Your task to perform on an android device: turn on improve location accuracy Image 0: 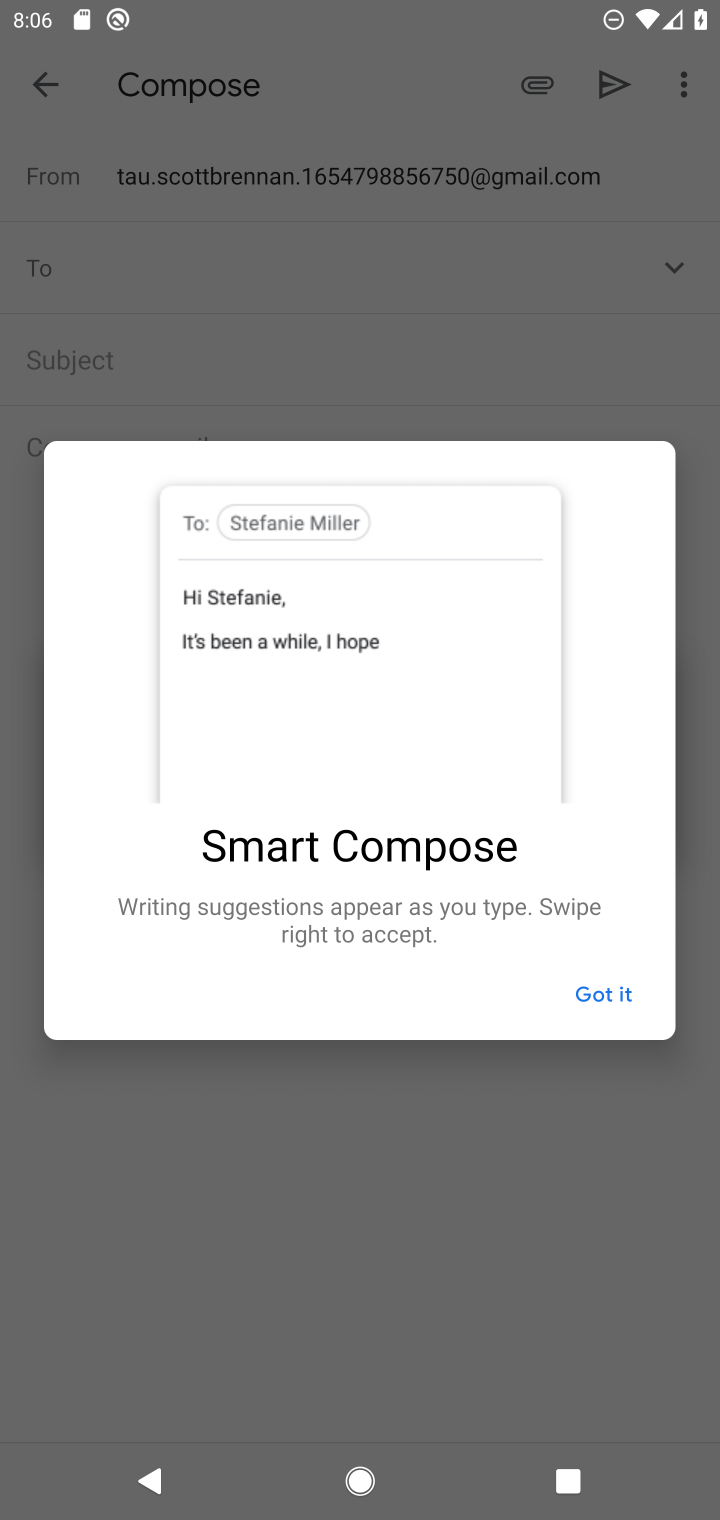
Step 0: press home button
Your task to perform on an android device: turn on improve location accuracy Image 1: 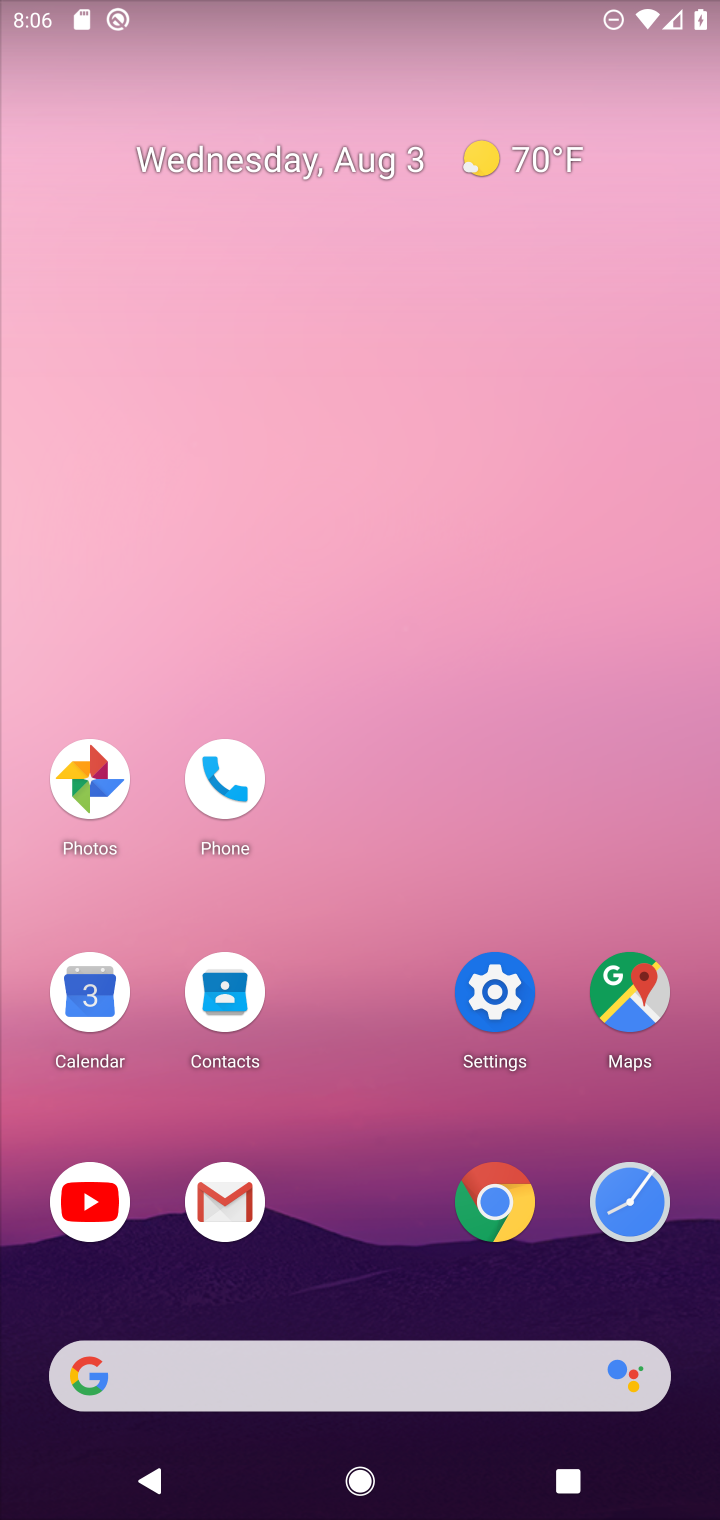
Step 1: click (490, 991)
Your task to perform on an android device: turn on improve location accuracy Image 2: 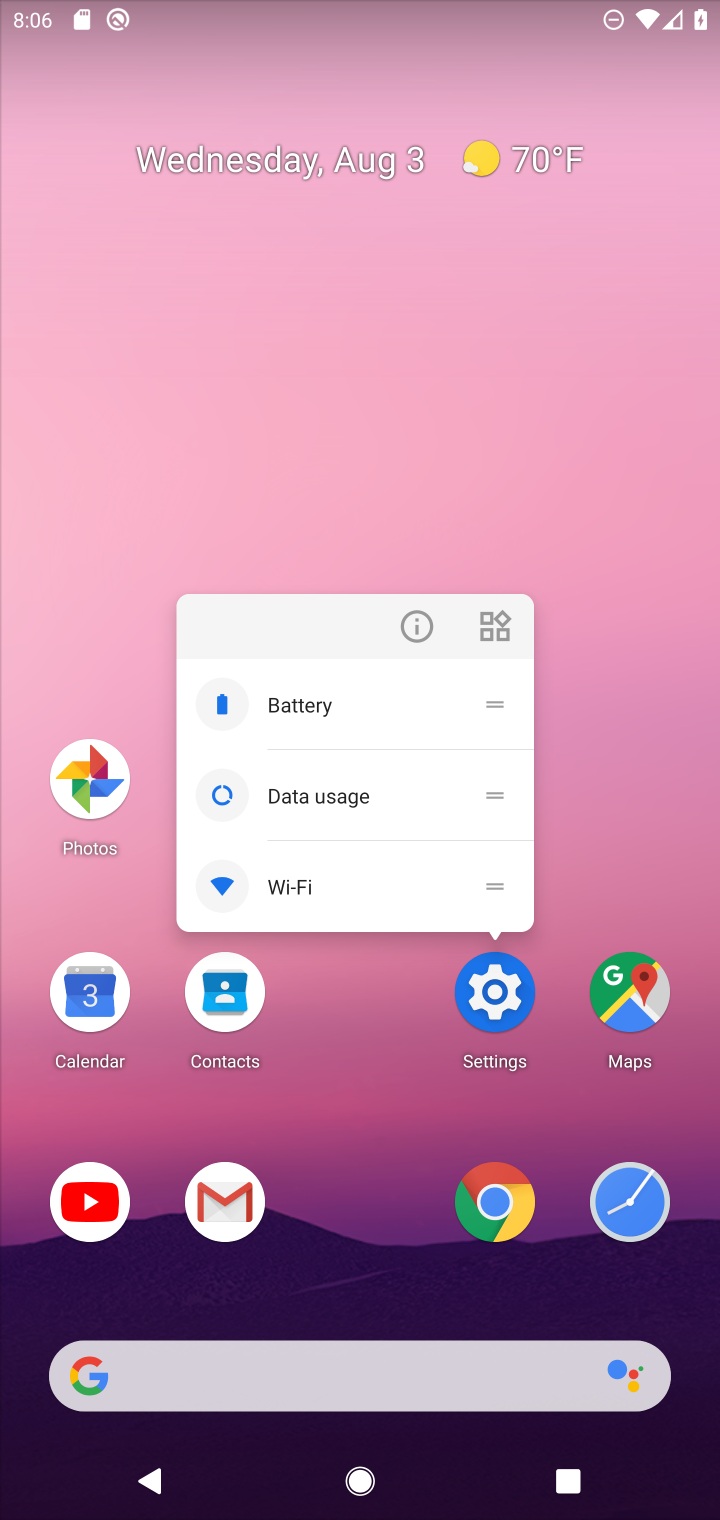
Step 2: click (490, 991)
Your task to perform on an android device: turn on improve location accuracy Image 3: 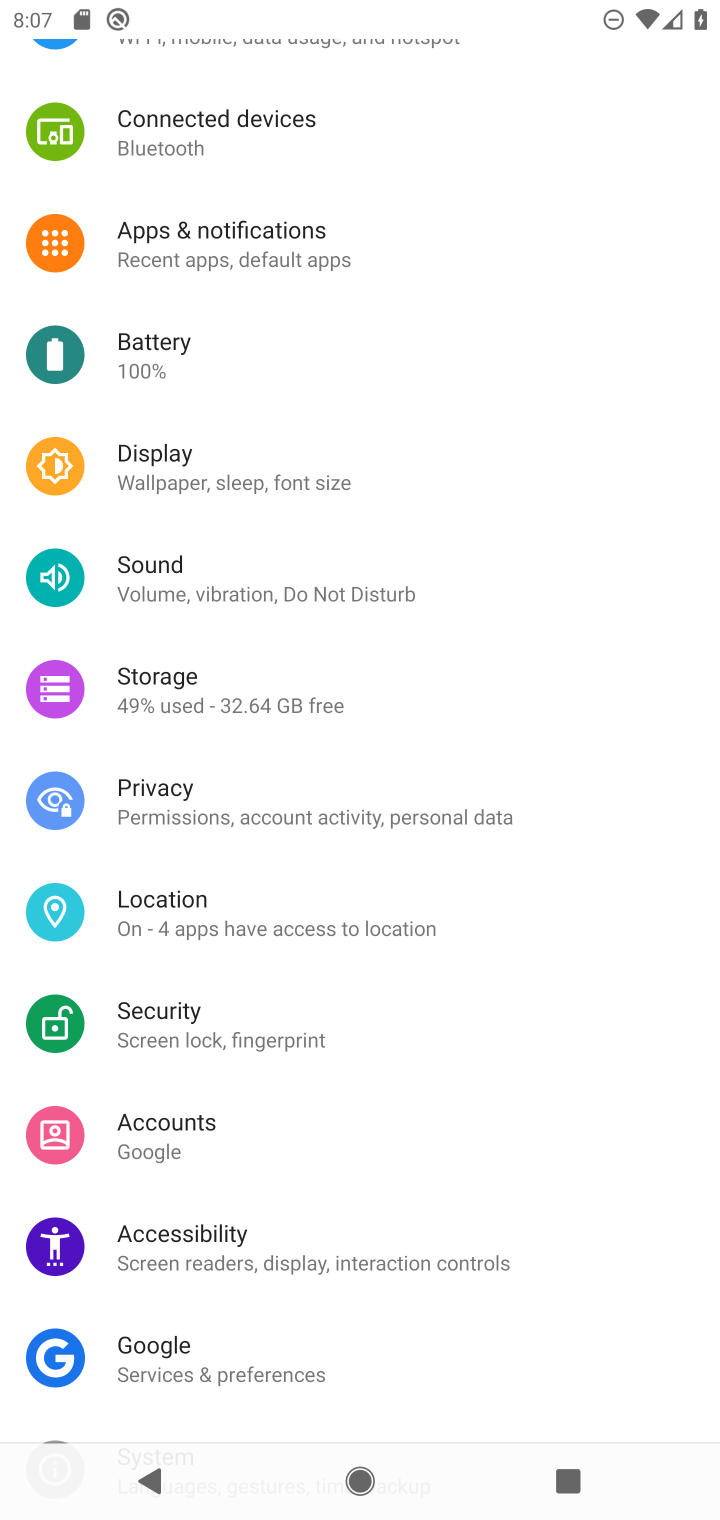
Step 3: click (175, 901)
Your task to perform on an android device: turn on improve location accuracy Image 4: 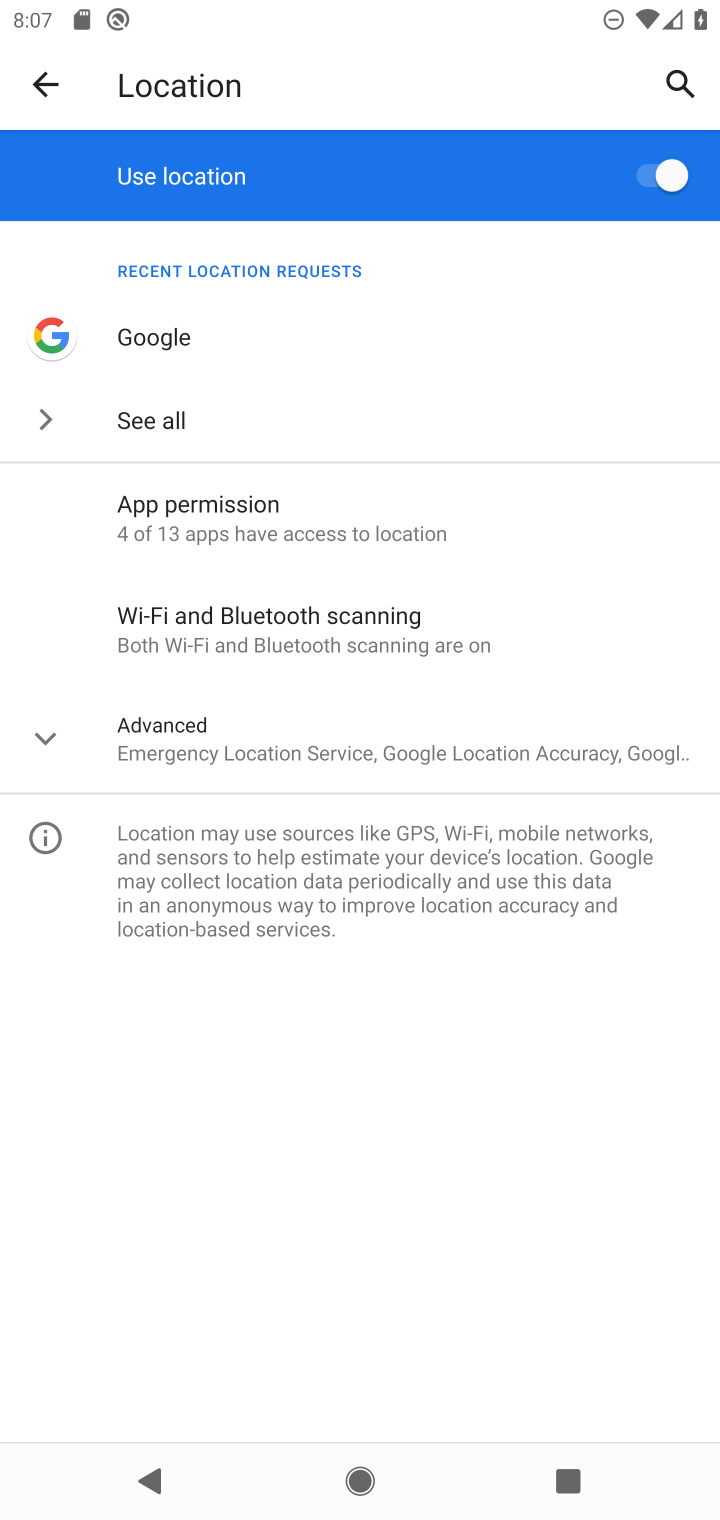
Step 4: click (46, 745)
Your task to perform on an android device: turn on improve location accuracy Image 5: 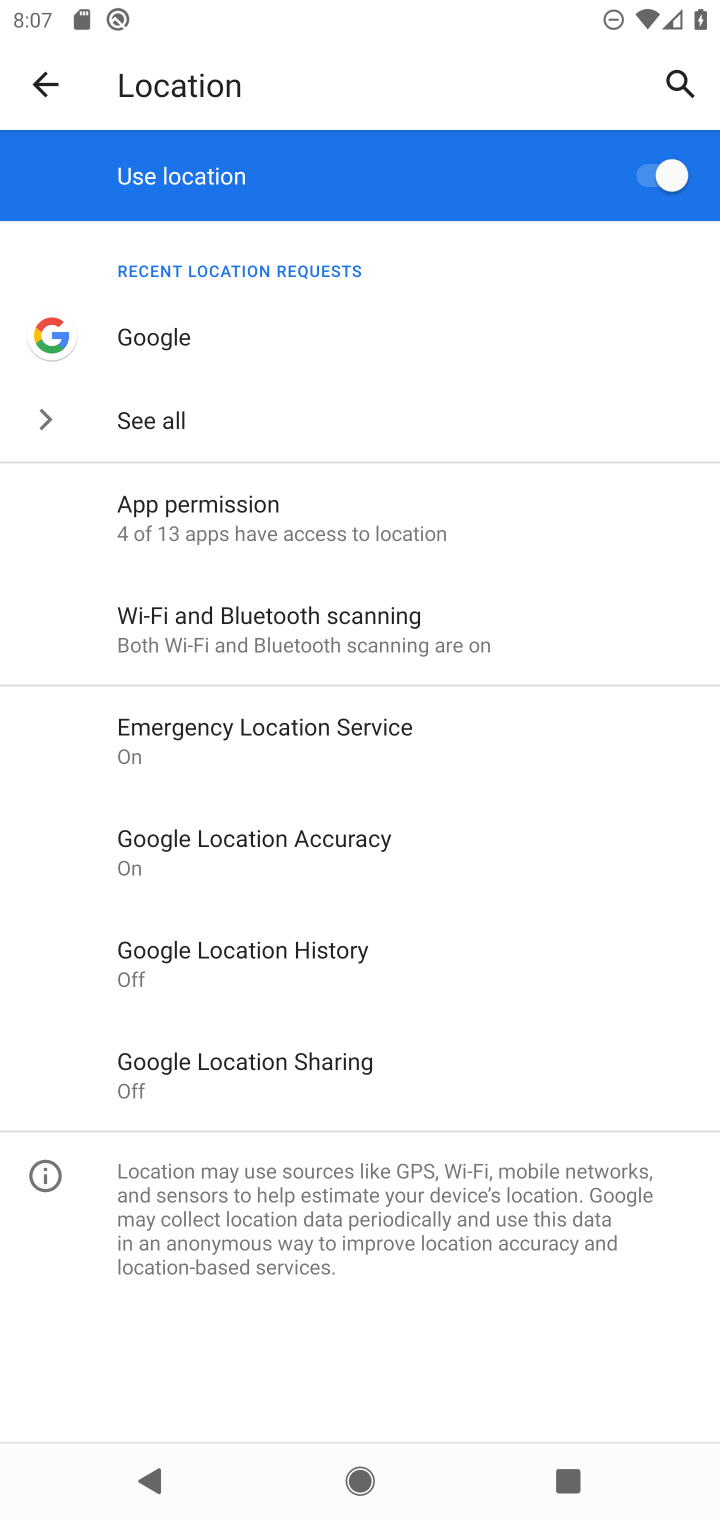
Step 5: click (233, 838)
Your task to perform on an android device: turn on improve location accuracy Image 6: 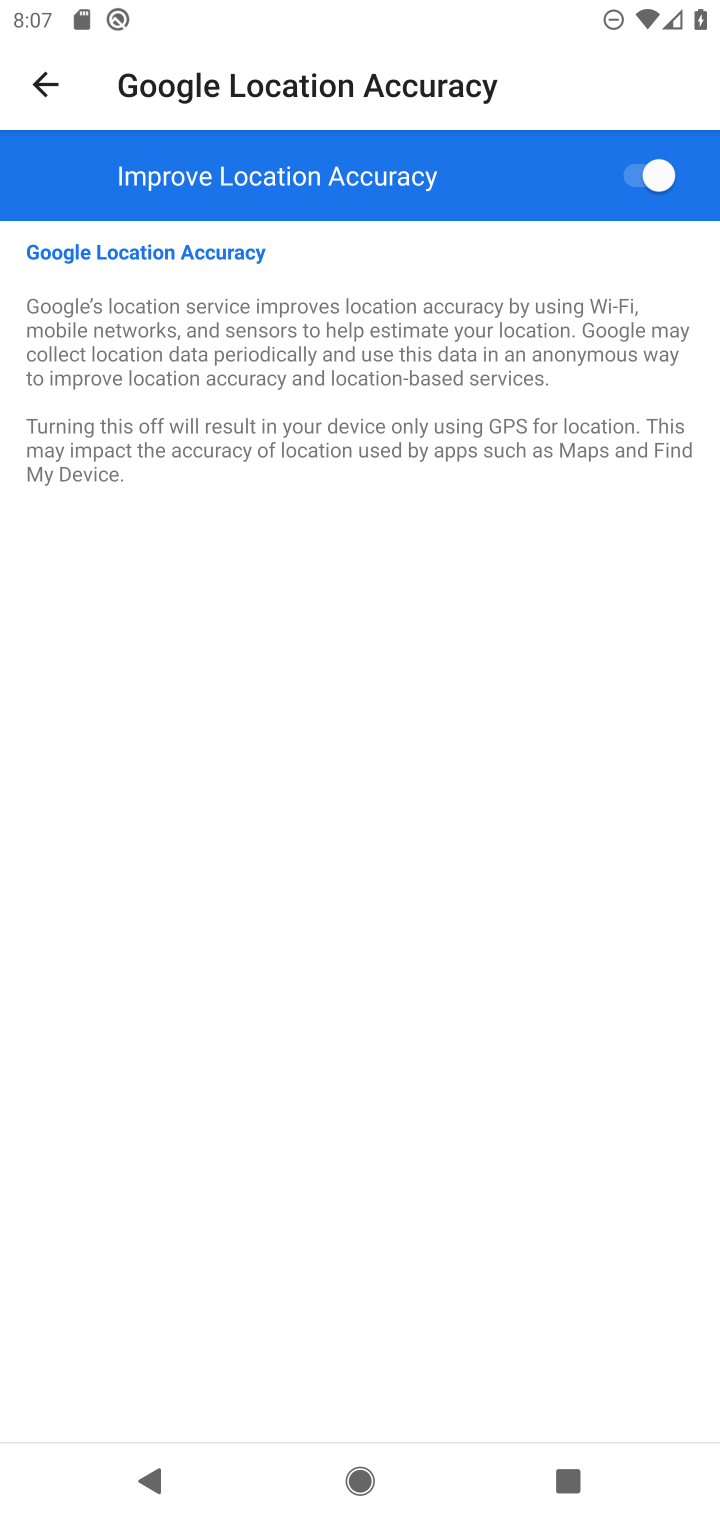
Step 6: task complete